Your task to perform on an android device: Go to Google maps Image 0: 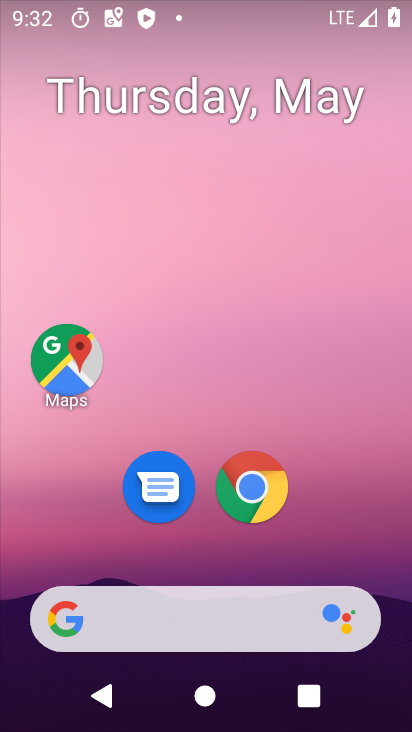
Step 0: drag from (213, 560) to (308, 18)
Your task to perform on an android device: Go to Google maps Image 1: 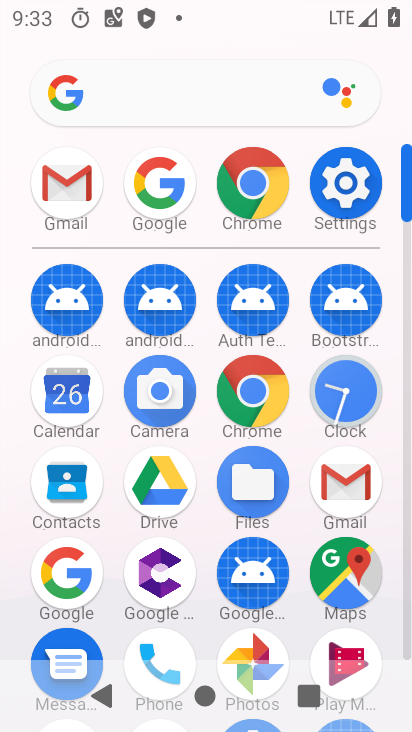
Step 1: click (341, 575)
Your task to perform on an android device: Go to Google maps Image 2: 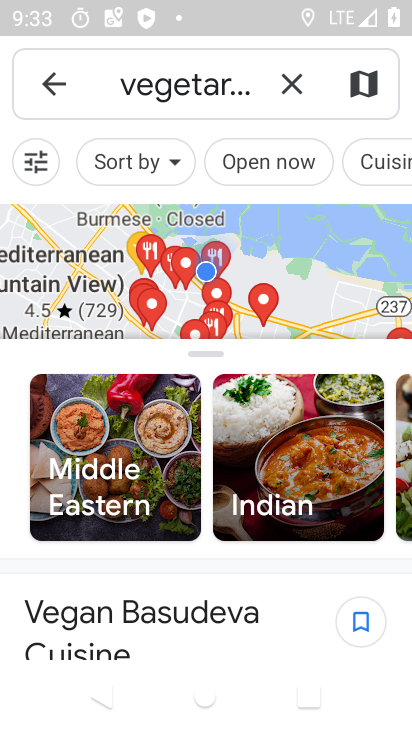
Step 2: task complete